Your task to perform on an android device: turn off data saver in the chrome app Image 0: 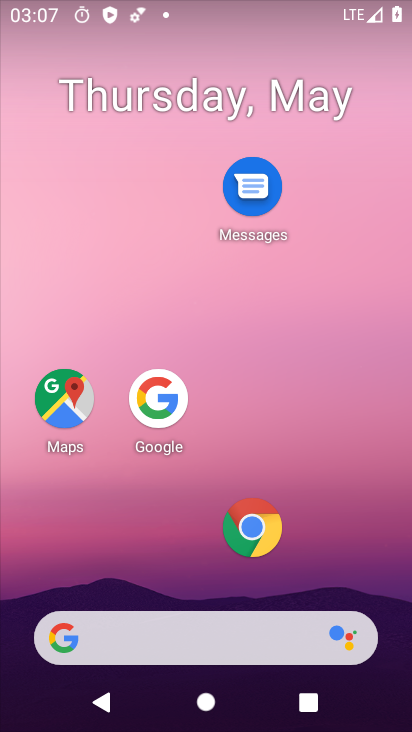
Step 0: drag from (177, 530) to (208, 183)
Your task to perform on an android device: turn off data saver in the chrome app Image 1: 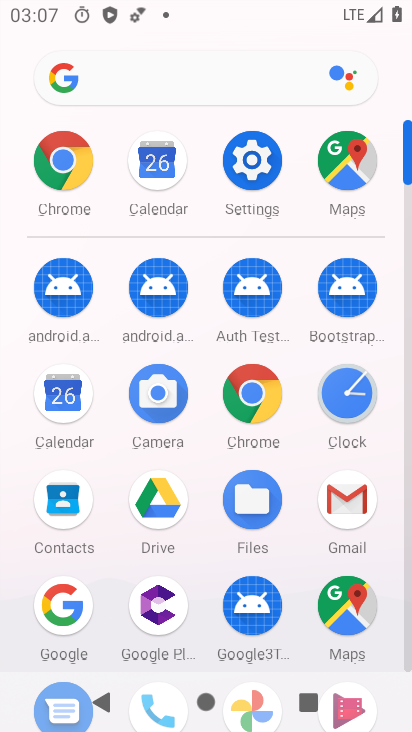
Step 1: click (239, 395)
Your task to perform on an android device: turn off data saver in the chrome app Image 2: 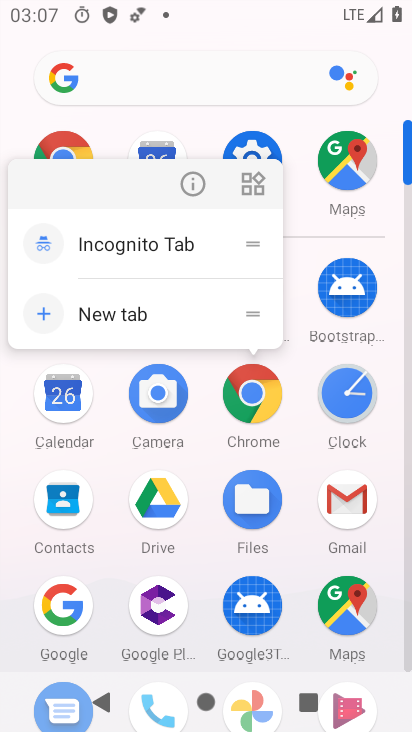
Step 2: click (191, 184)
Your task to perform on an android device: turn off data saver in the chrome app Image 3: 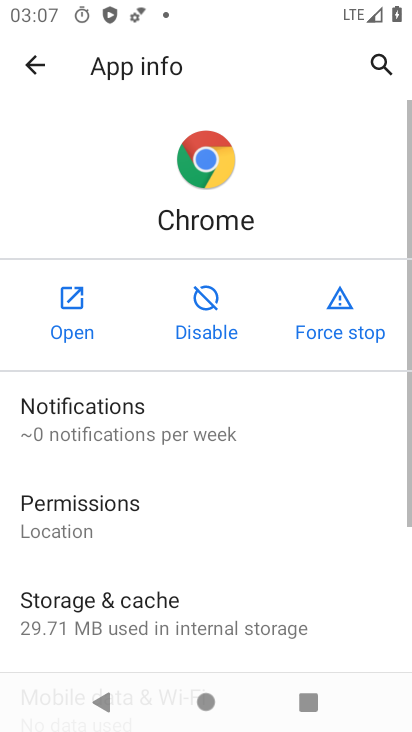
Step 3: click (77, 321)
Your task to perform on an android device: turn off data saver in the chrome app Image 4: 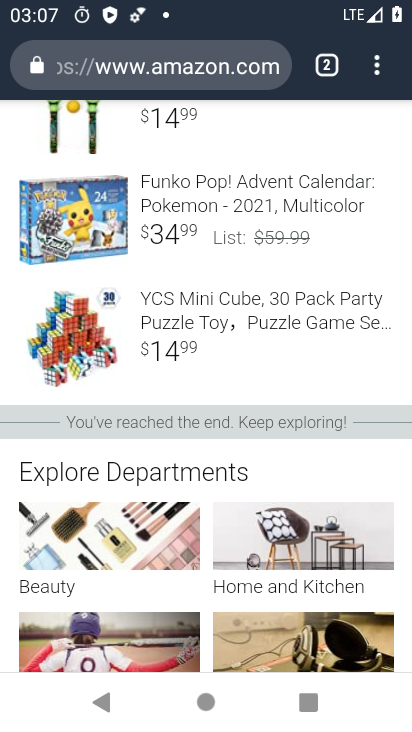
Step 4: drag from (253, 228) to (397, 698)
Your task to perform on an android device: turn off data saver in the chrome app Image 5: 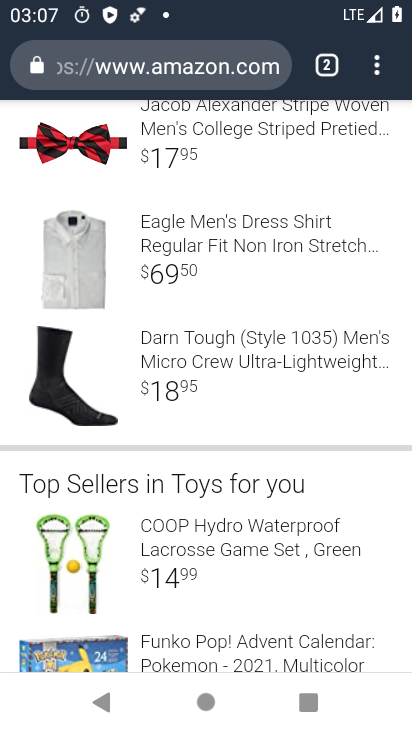
Step 5: click (375, 68)
Your task to perform on an android device: turn off data saver in the chrome app Image 6: 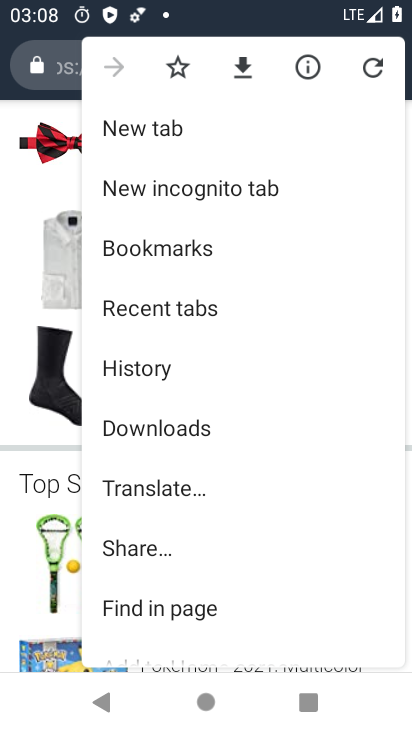
Step 6: drag from (183, 606) to (228, 188)
Your task to perform on an android device: turn off data saver in the chrome app Image 7: 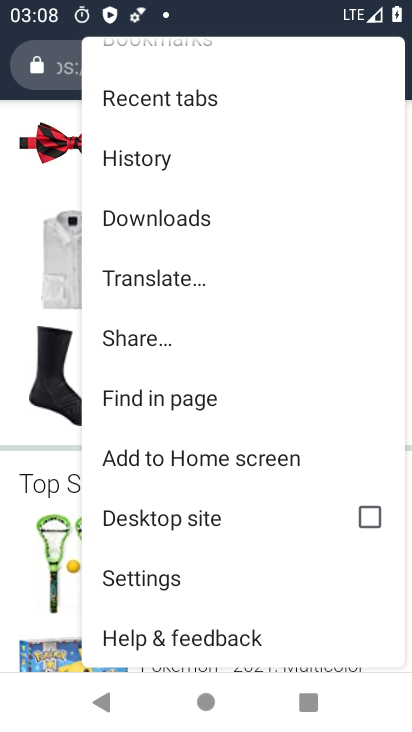
Step 7: click (182, 589)
Your task to perform on an android device: turn off data saver in the chrome app Image 8: 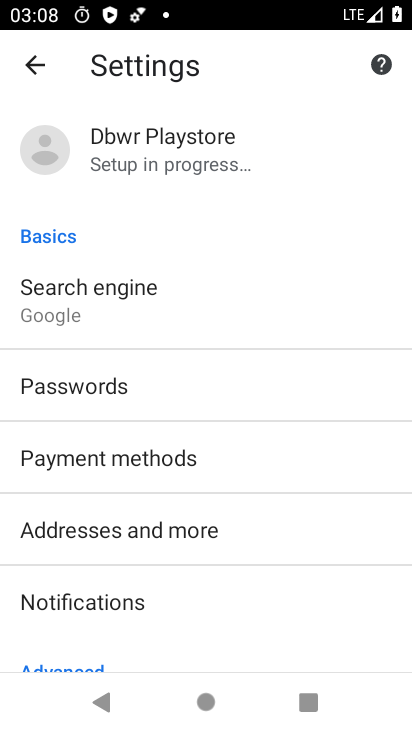
Step 8: drag from (203, 606) to (212, 137)
Your task to perform on an android device: turn off data saver in the chrome app Image 9: 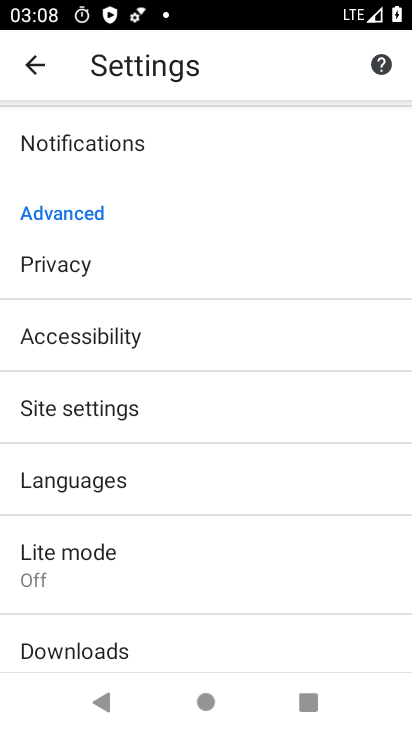
Step 9: click (76, 553)
Your task to perform on an android device: turn off data saver in the chrome app Image 10: 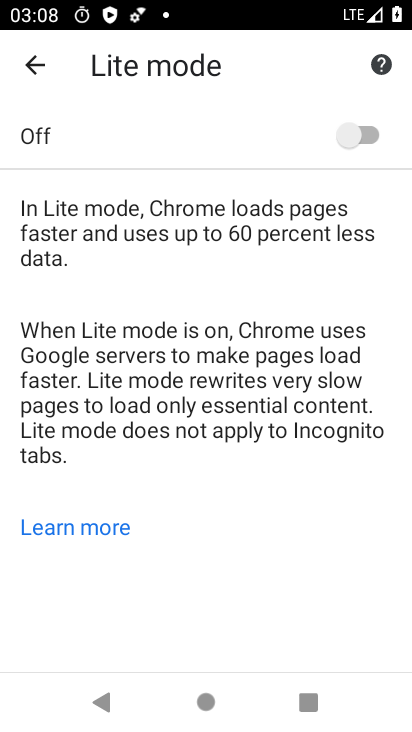
Step 10: task complete